Your task to perform on an android device: Open the web browser Image 0: 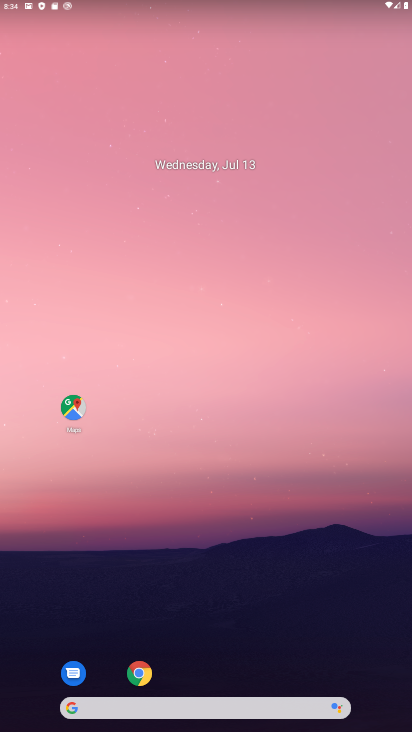
Step 0: click (141, 674)
Your task to perform on an android device: Open the web browser Image 1: 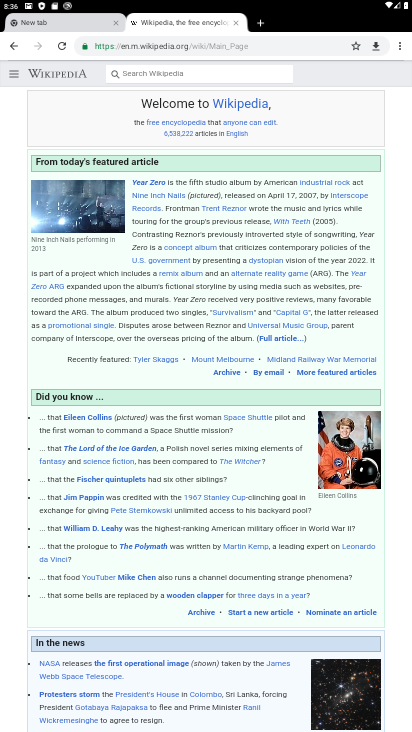
Step 1: task complete